Your task to perform on an android device: turn vacation reply on in the gmail app Image 0: 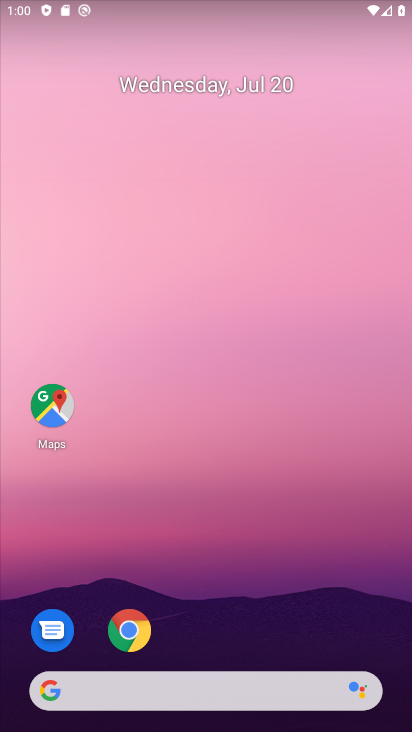
Step 0: drag from (309, 391) to (287, 97)
Your task to perform on an android device: turn vacation reply on in the gmail app Image 1: 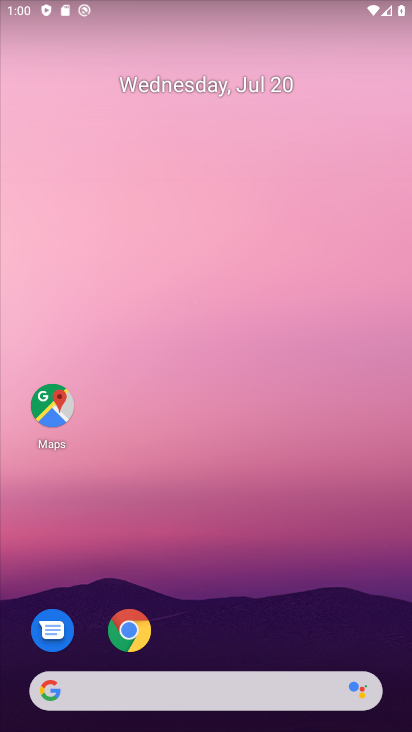
Step 1: drag from (305, 563) to (241, 102)
Your task to perform on an android device: turn vacation reply on in the gmail app Image 2: 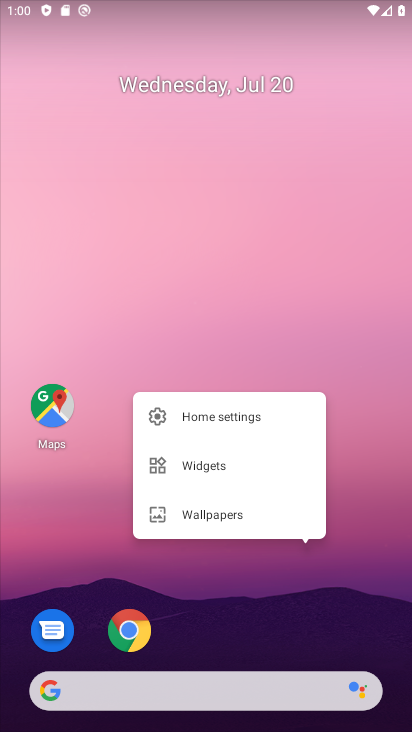
Step 2: click (274, 266)
Your task to perform on an android device: turn vacation reply on in the gmail app Image 3: 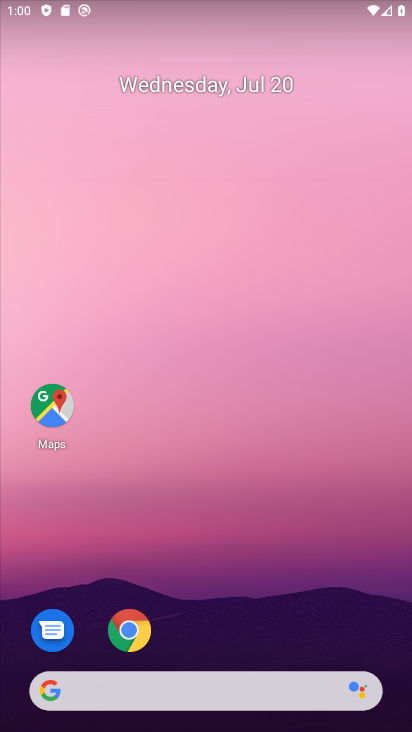
Step 3: drag from (329, 625) to (280, 33)
Your task to perform on an android device: turn vacation reply on in the gmail app Image 4: 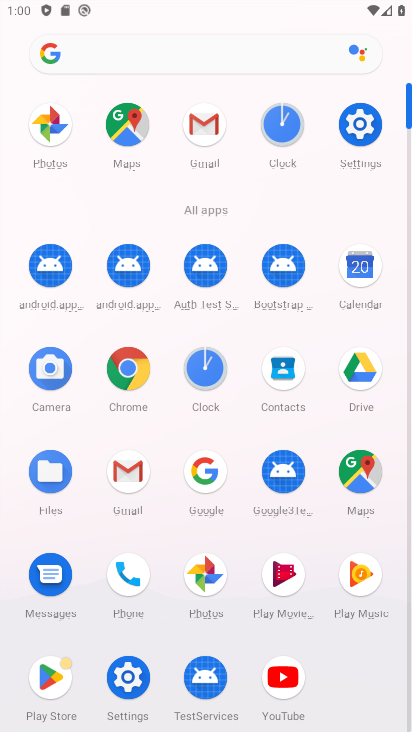
Step 4: click (214, 133)
Your task to perform on an android device: turn vacation reply on in the gmail app Image 5: 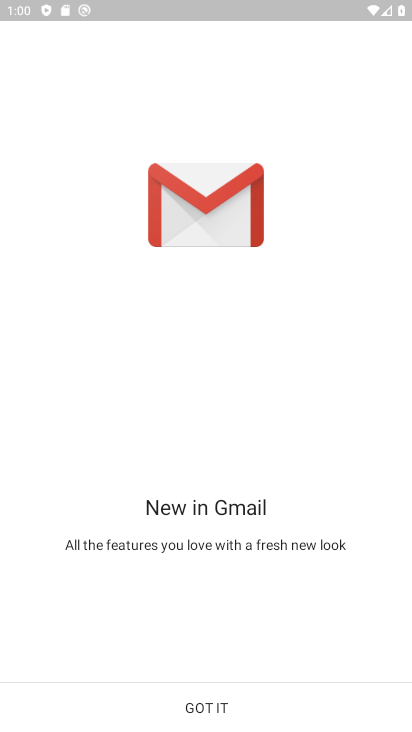
Step 5: click (224, 696)
Your task to perform on an android device: turn vacation reply on in the gmail app Image 6: 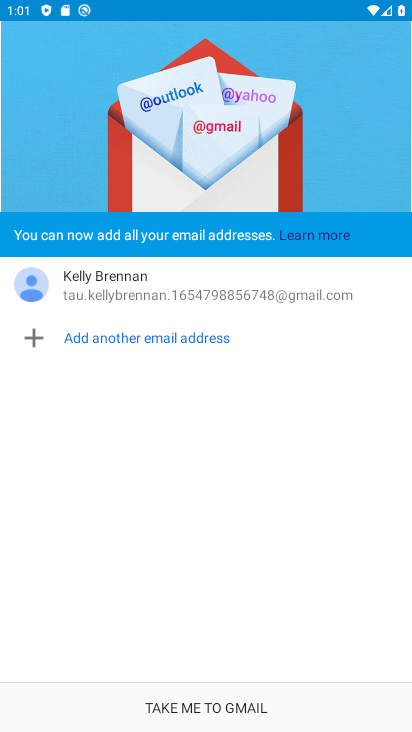
Step 6: click (220, 714)
Your task to perform on an android device: turn vacation reply on in the gmail app Image 7: 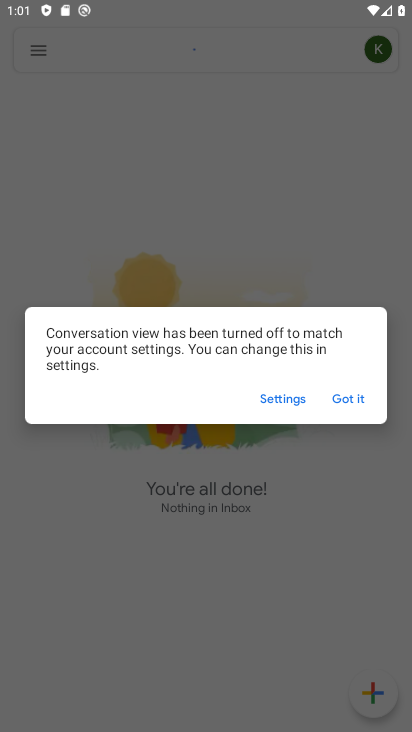
Step 7: click (363, 387)
Your task to perform on an android device: turn vacation reply on in the gmail app Image 8: 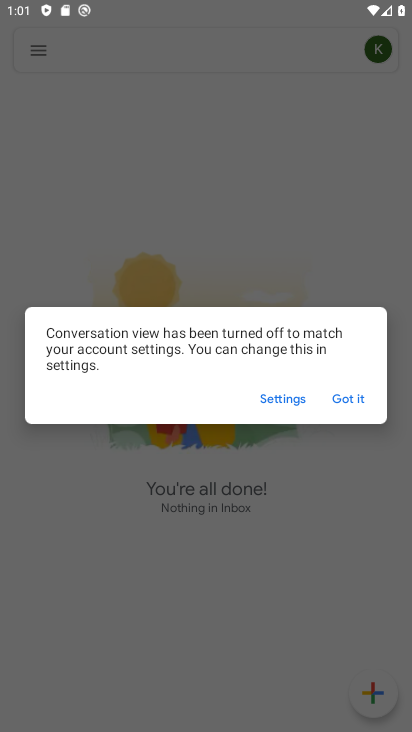
Step 8: click (357, 395)
Your task to perform on an android device: turn vacation reply on in the gmail app Image 9: 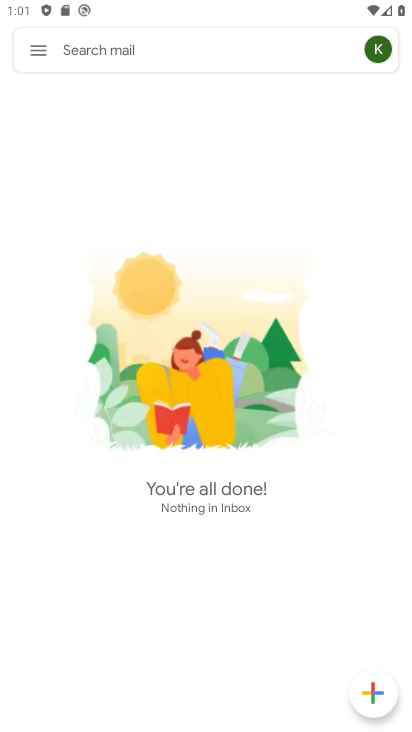
Step 9: click (41, 40)
Your task to perform on an android device: turn vacation reply on in the gmail app Image 10: 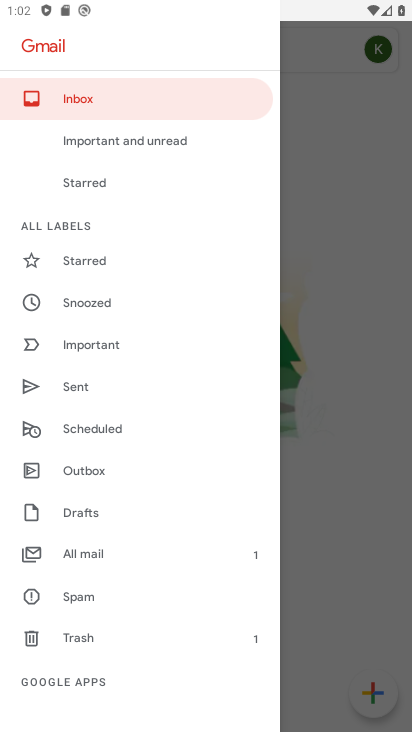
Step 10: drag from (97, 623) to (145, 137)
Your task to perform on an android device: turn vacation reply on in the gmail app Image 11: 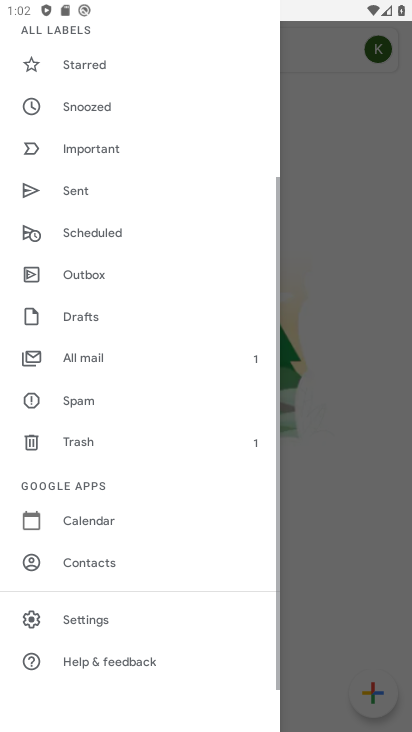
Step 11: click (93, 615)
Your task to perform on an android device: turn vacation reply on in the gmail app Image 12: 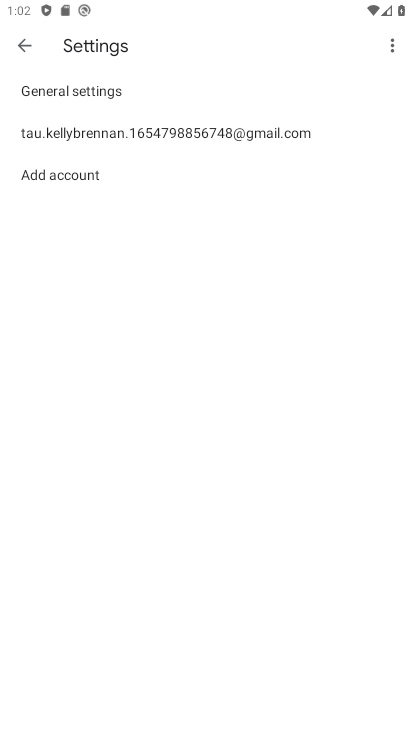
Step 12: click (206, 140)
Your task to perform on an android device: turn vacation reply on in the gmail app Image 13: 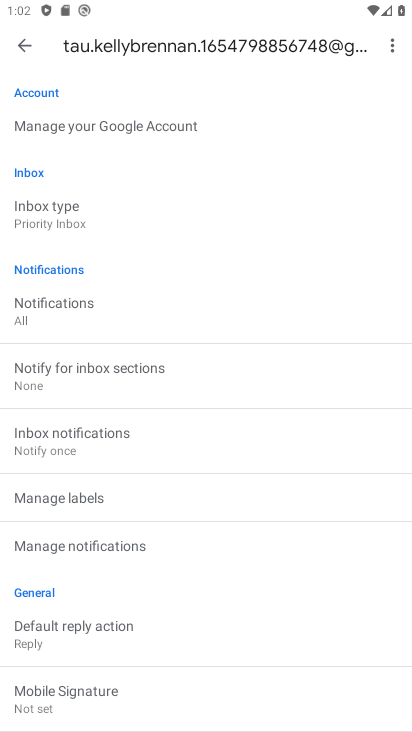
Step 13: drag from (133, 657) to (173, 205)
Your task to perform on an android device: turn vacation reply on in the gmail app Image 14: 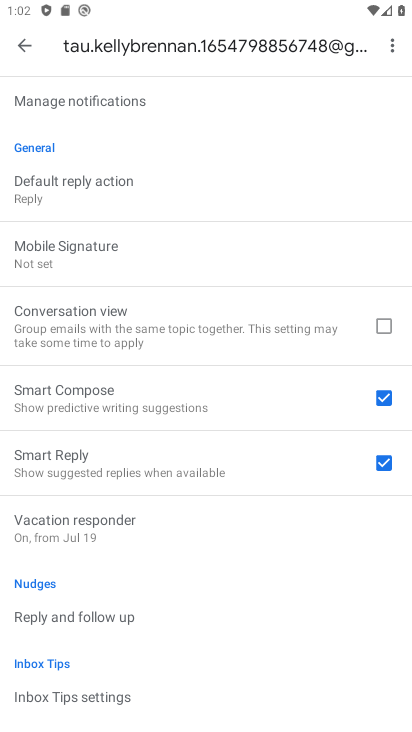
Step 14: click (180, 534)
Your task to perform on an android device: turn vacation reply on in the gmail app Image 15: 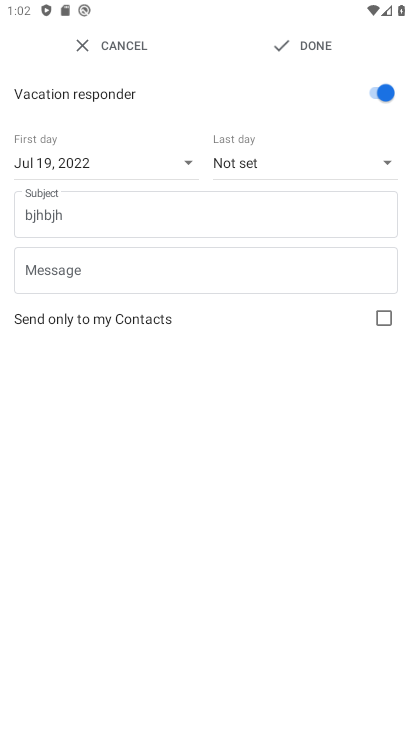
Step 15: task complete